Your task to perform on an android device: turn on sleep mode Image 0: 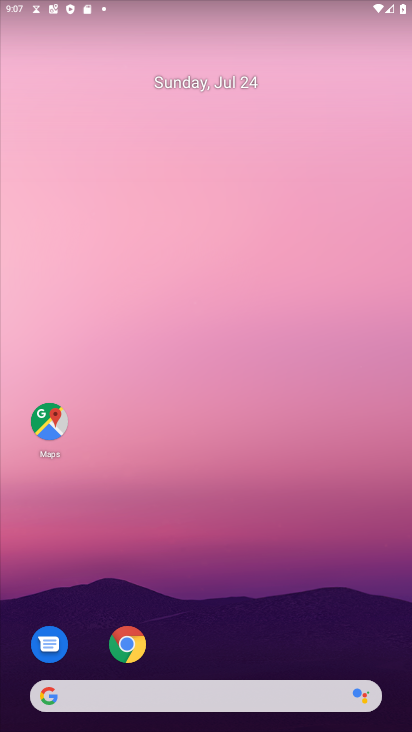
Step 0: drag from (362, 635) to (322, 0)
Your task to perform on an android device: turn on sleep mode Image 1: 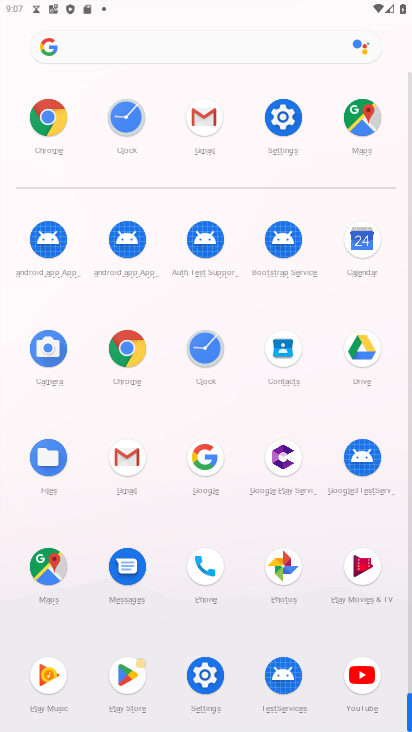
Step 1: task complete